Your task to perform on an android device: Do I have any events today? Image 0: 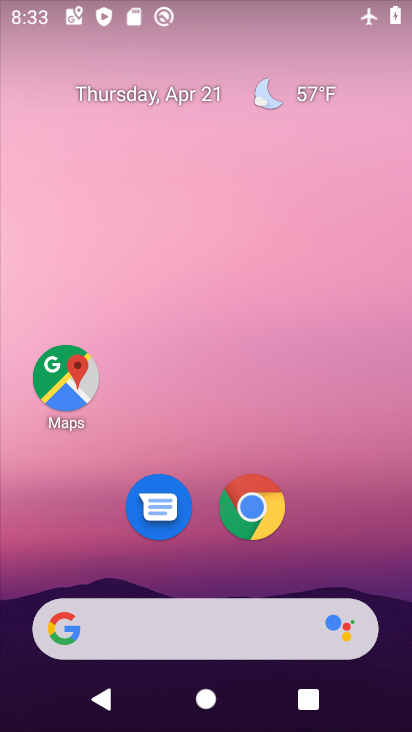
Step 0: drag from (372, 571) to (340, 22)
Your task to perform on an android device: Do I have any events today? Image 1: 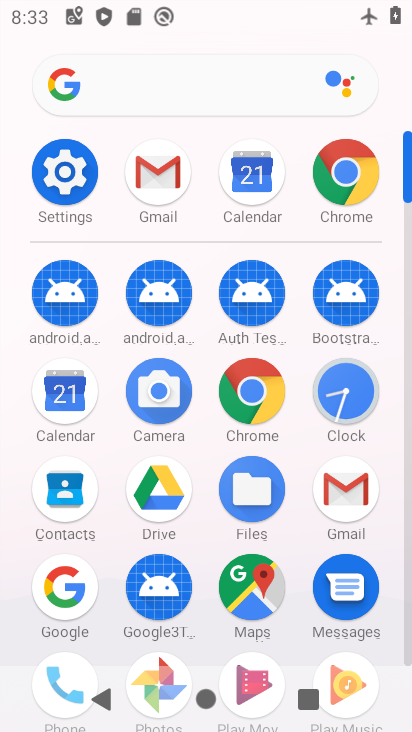
Step 1: click (48, 423)
Your task to perform on an android device: Do I have any events today? Image 2: 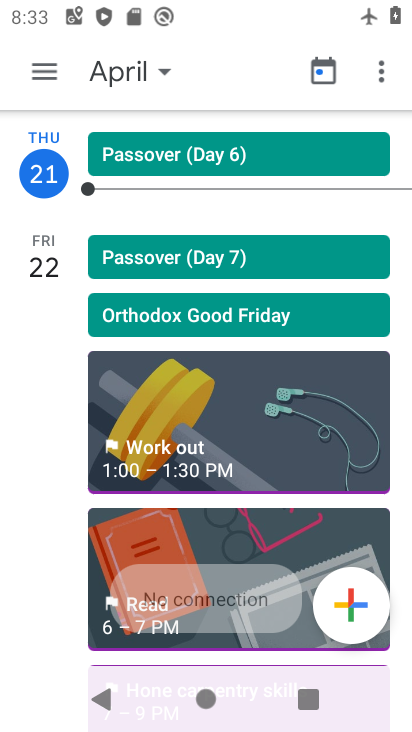
Step 2: click (55, 408)
Your task to perform on an android device: Do I have any events today? Image 3: 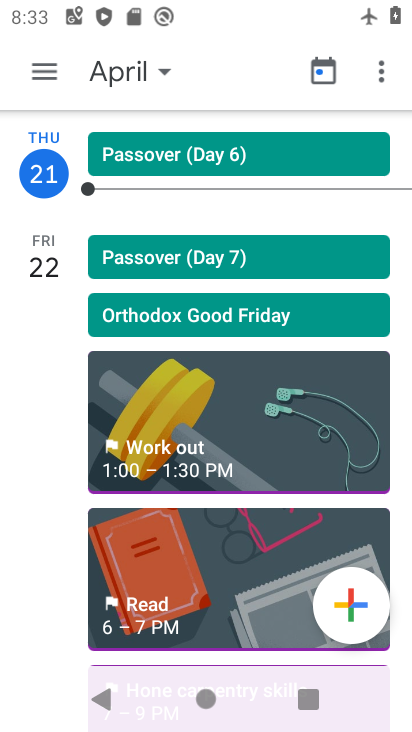
Step 3: click (164, 76)
Your task to perform on an android device: Do I have any events today? Image 4: 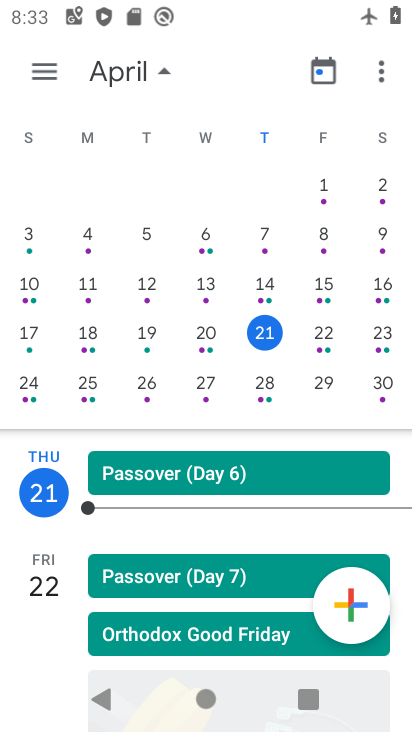
Step 4: task complete